Your task to perform on an android device: open chrome privacy settings Image 0: 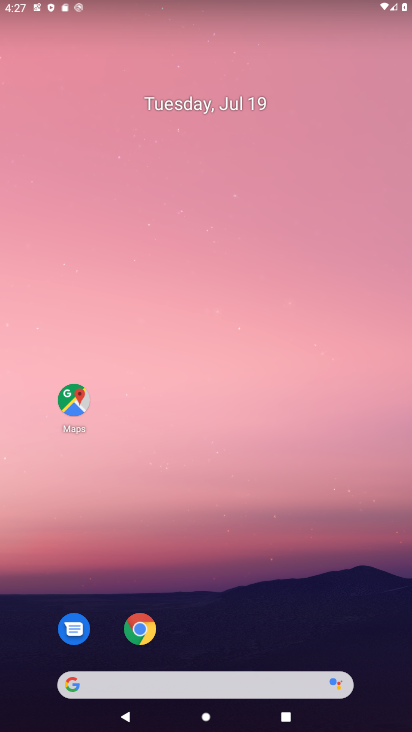
Step 0: drag from (219, 648) to (235, 367)
Your task to perform on an android device: open chrome privacy settings Image 1: 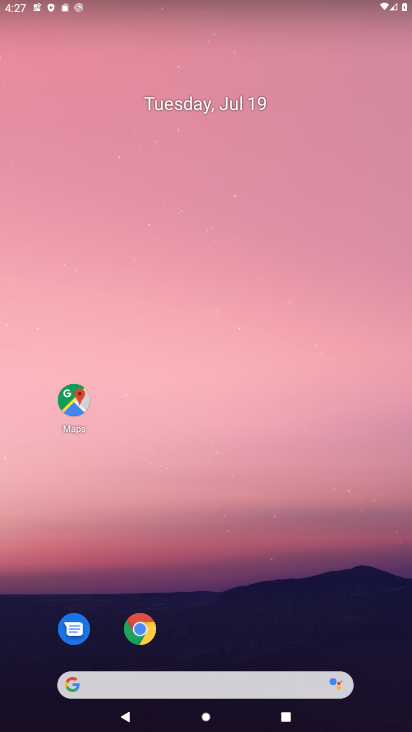
Step 1: click (131, 628)
Your task to perform on an android device: open chrome privacy settings Image 2: 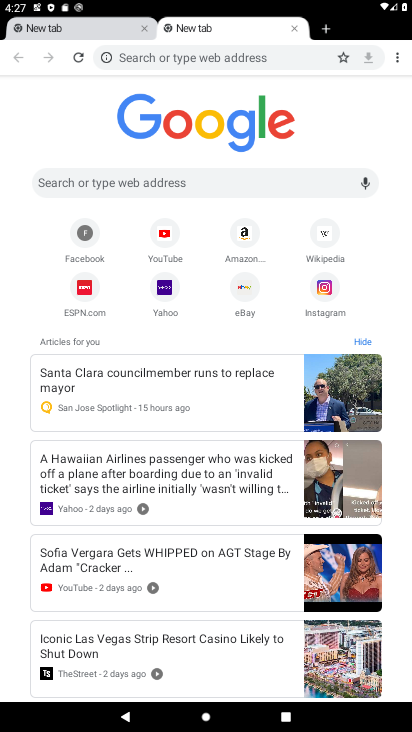
Step 2: click (398, 57)
Your task to perform on an android device: open chrome privacy settings Image 3: 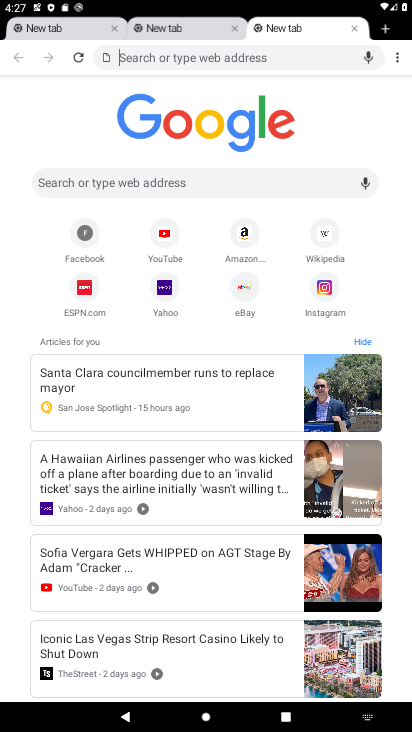
Step 3: click (387, 65)
Your task to perform on an android device: open chrome privacy settings Image 4: 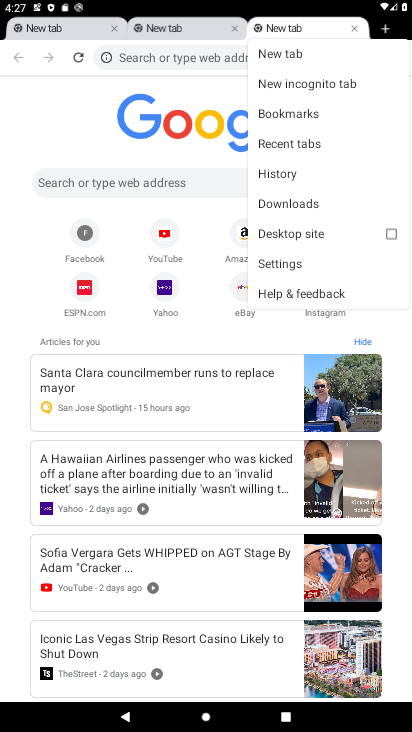
Step 4: click (279, 261)
Your task to perform on an android device: open chrome privacy settings Image 5: 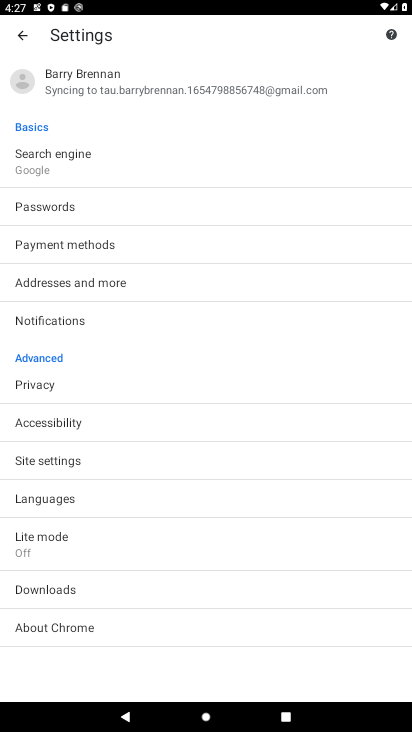
Step 5: click (31, 390)
Your task to perform on an android device: open chrome privacy settings Image 6: 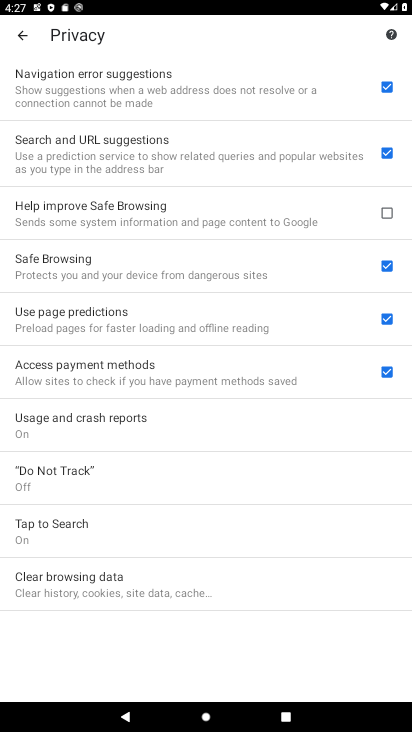
Step 6: task complete